Your task to perform on an android device: Open the map Image 0: 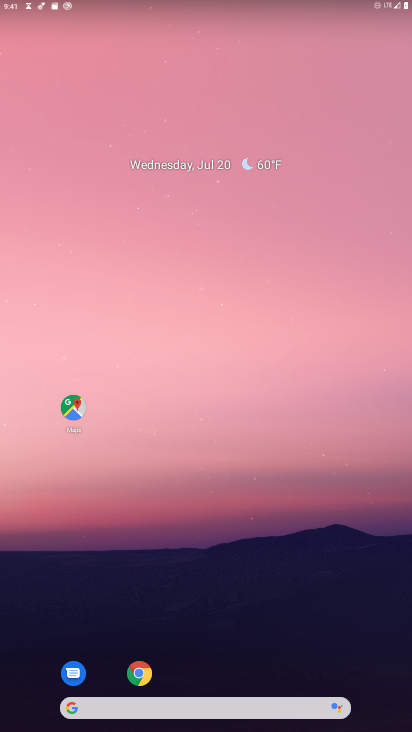
Step 0: drag from (204, 581) to (199, 172)
Your task to perform on an android device: Open the map Image 1: 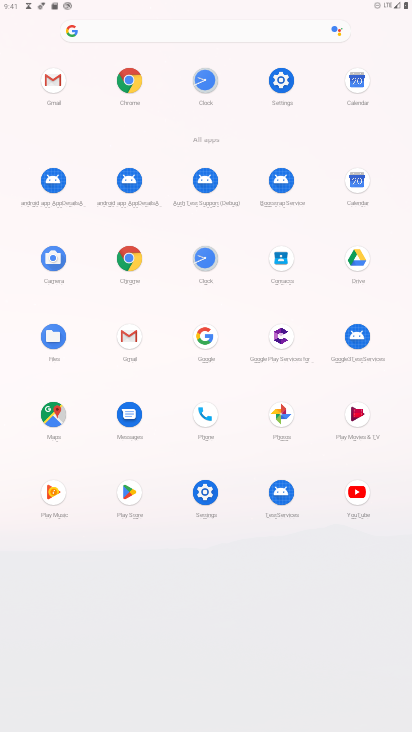
Step 1: click (46, 420)
Your task to perform on an android device: Open the map Image 2: 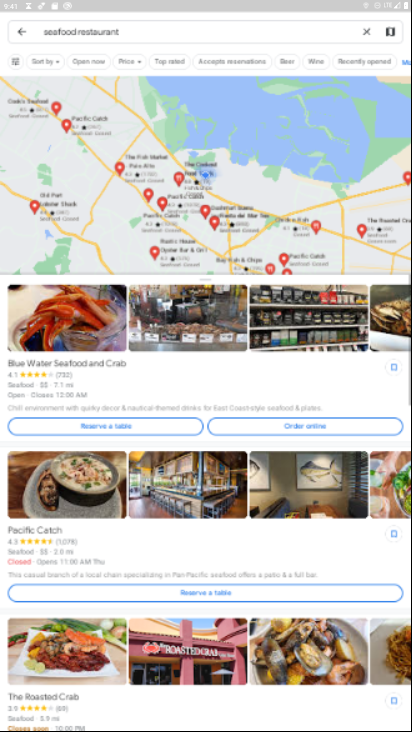
Step 2: task complete